Your task to perform on an android device: toggle translation in the chrome app Image 0: 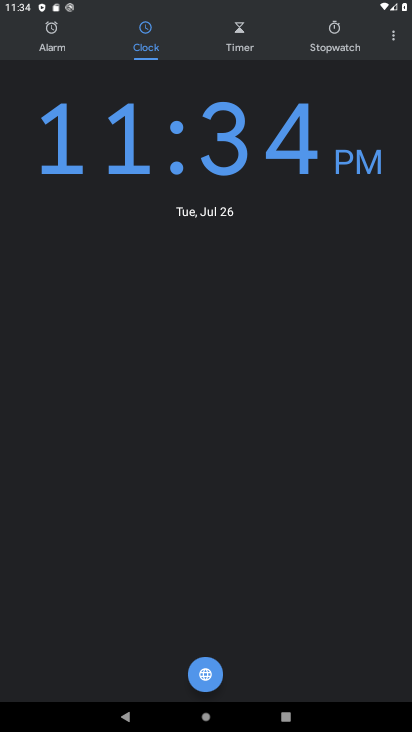
Step 0: press home button
Your task to perform on an android device: toggle translation in the chrome app Image 1: 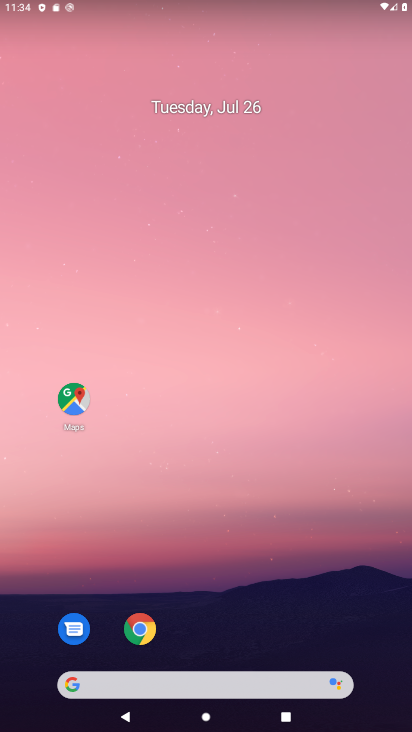
Step 1: click (141, 626)
Your task to perform on an android device: toggle translation in the chrome app Image 2: 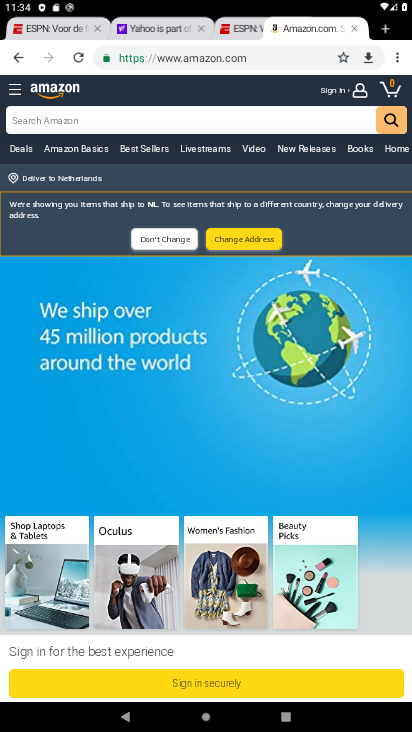
Step 2: click (397, 64)
Your task to perform on an android device: toggle translation in the chrome app Image 3: 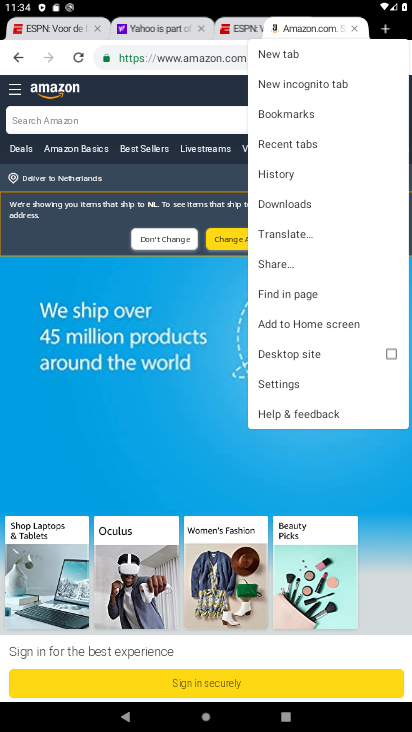
Step 3: click (276, 382)
Your task to perform on an android device: toggle translation in the chrome app Image 4: 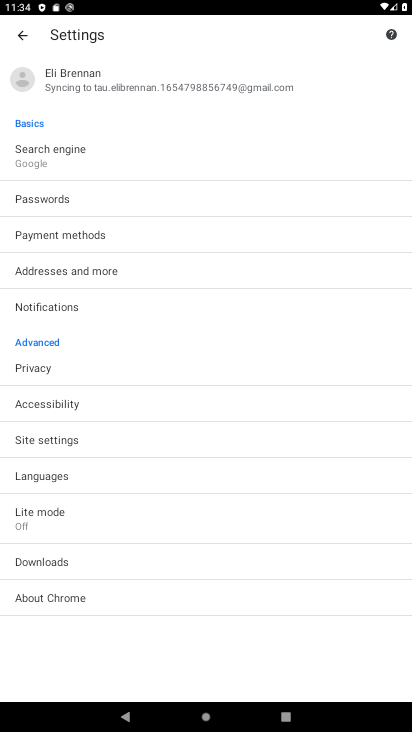
Step 4: click (32, 477)
Your task to perform on an android device: toggle translation in the chrome app Image 5: 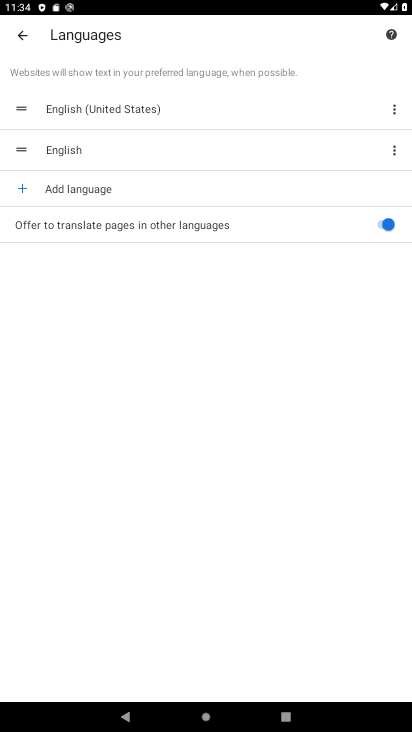
Step 5: click (378, 217)
Your task to perform on an android device: toggle translation in the chrome app Image 6: 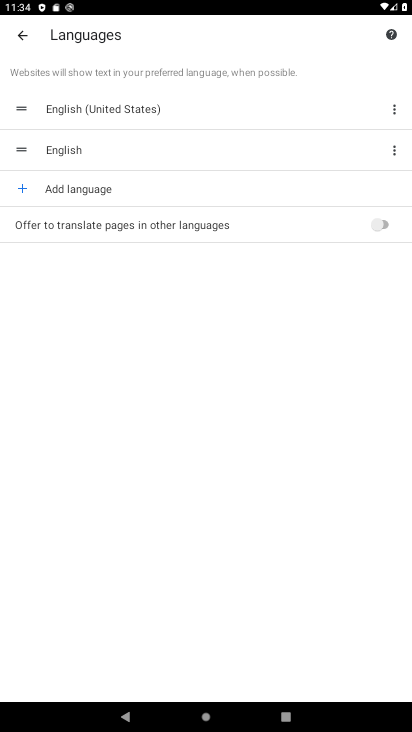
Step 6: task complete